Your task to perform on an android device: refresh tabs in the chrome app Image 0: 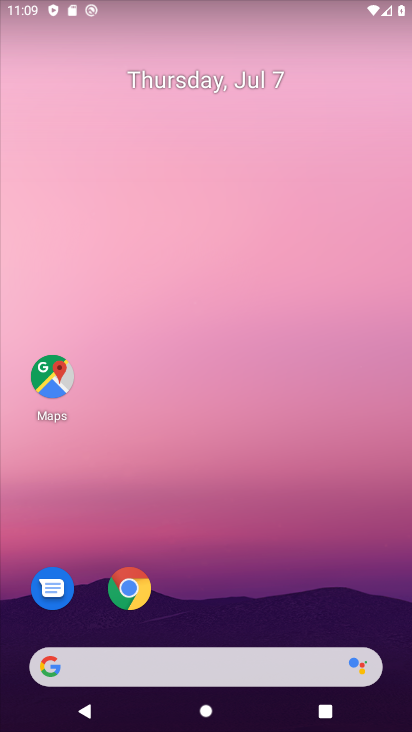
Step 0: click (126, 585)
Your task to perform on an android device: refresh tabs in the chrome app Image 1: 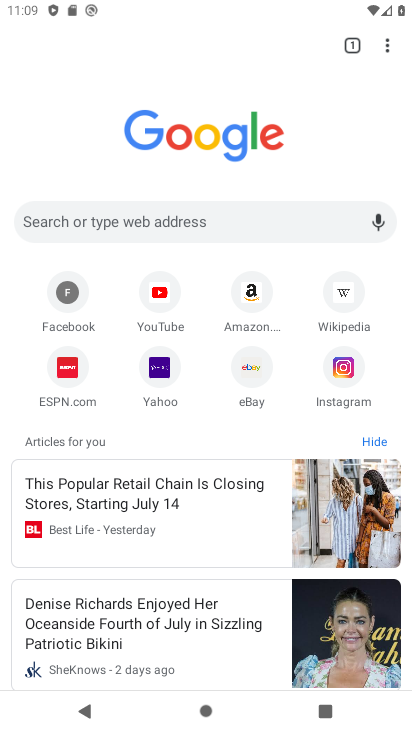
Step 1: click (387, 48)
Your task to perform on an android device: refresh tabs in the chrome app Image 2: 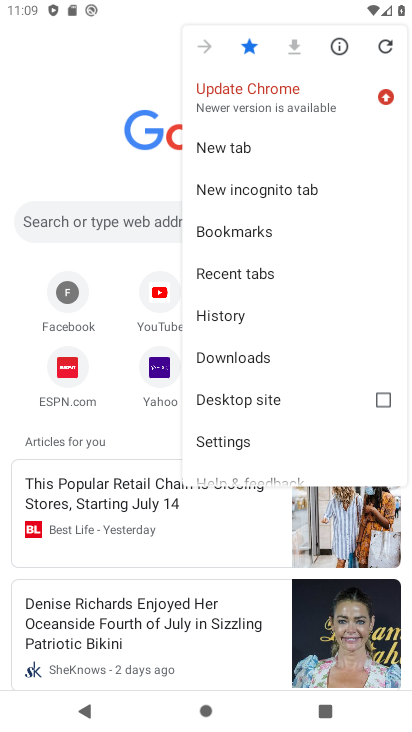
Step 2: click (382, 43)
Your task to perform on an android device: refresh tabs in the chrome app Image 3: 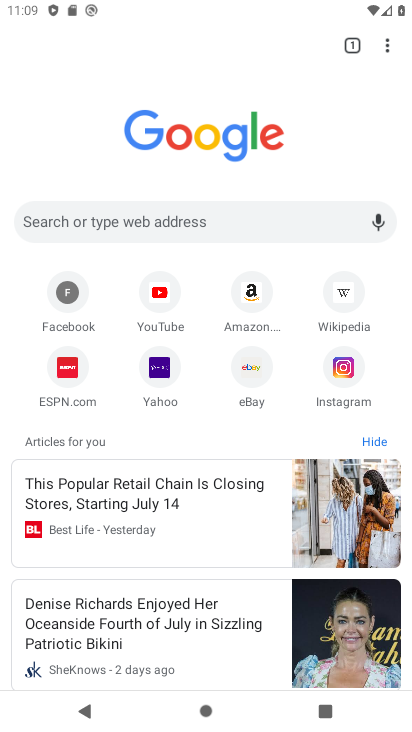
Step 3: task complete